Your task to perform on an android device: turn on airplane mode Image 0: 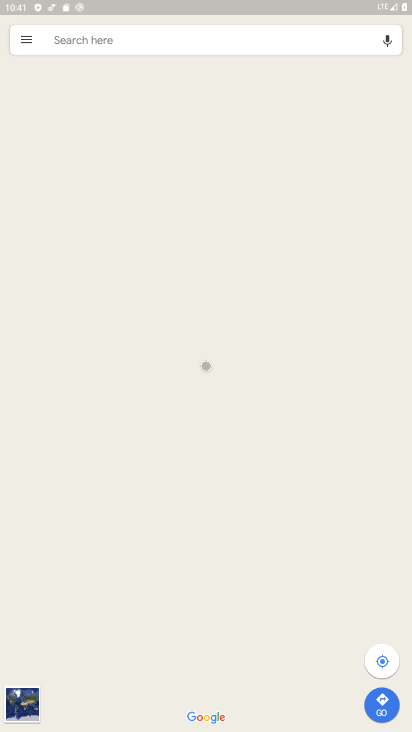
Step 0: press home button
Your task to perform on an android device: turn on airplane mode Image 1: 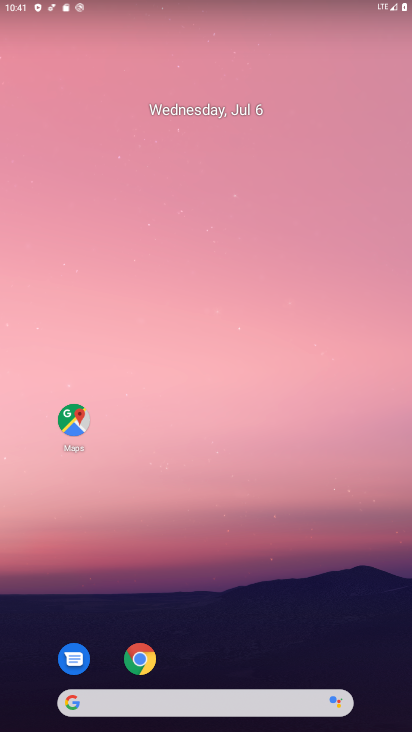
Step 1: drag from (204, 663) to (193, 213)
Your task to perform on an android device: turn on airplane mode Image 2: 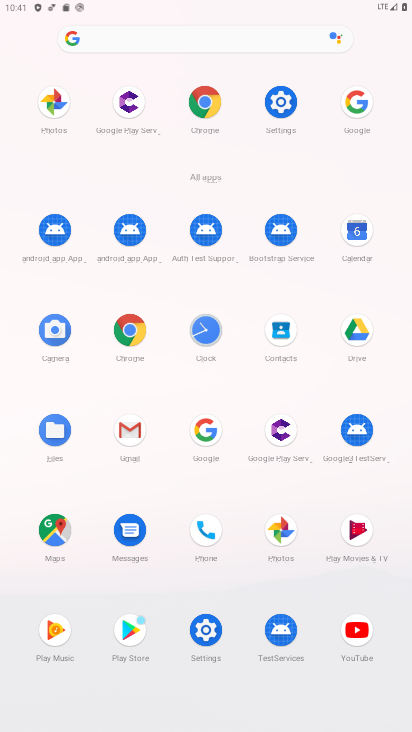
Step 2: click (292, 114)
Your task to perform on an android device: turn on airplane mode Image 3: 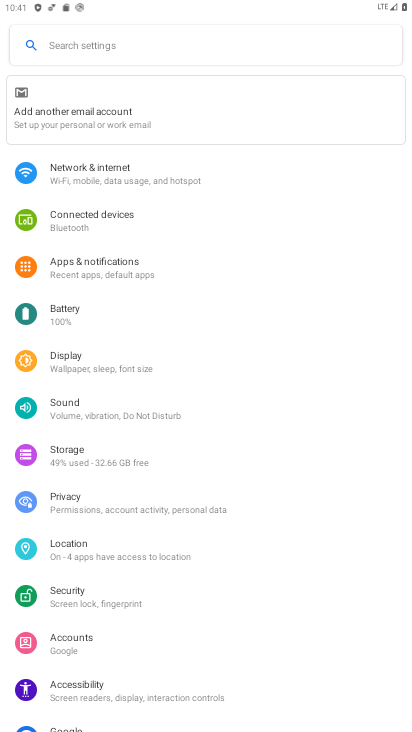
Step 3: click (126, 182)
Your task to perform on an android device: turn on airplane mode Image 4: 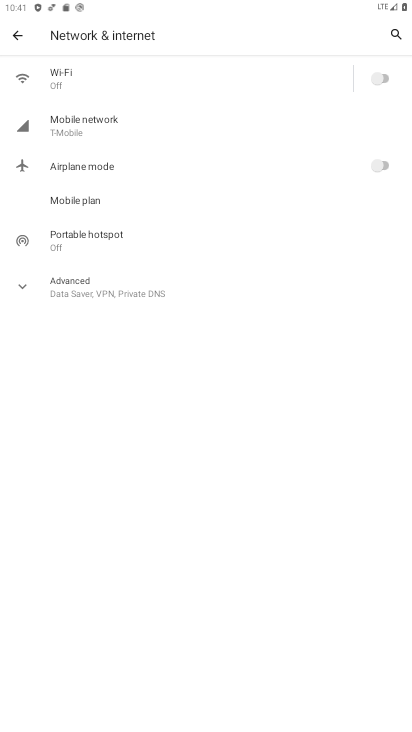
Step 4: click (384, 165)
Your task to perform on an android device: turn on airplane mode Image 5: 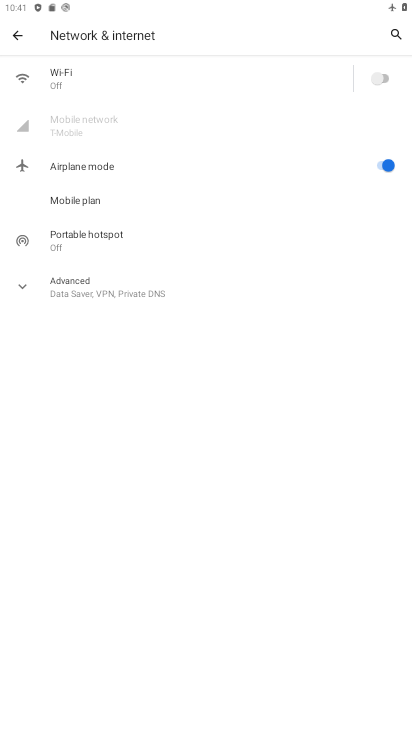
Step 5: task complete